Your task to perform on an android device: Play the last video I watched on Youtube Image 0: 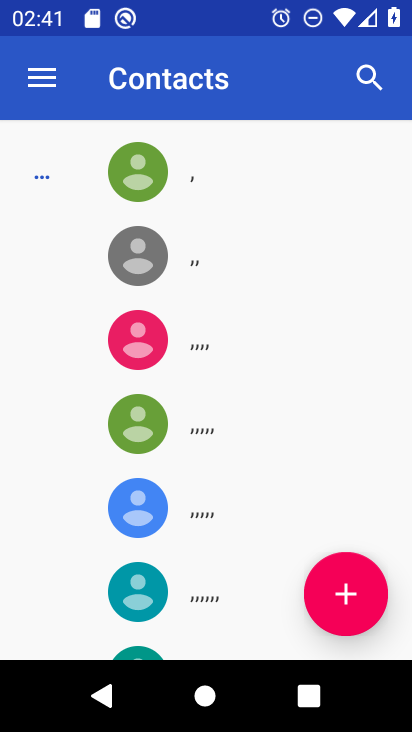
Step 0: press home button
Your task to perform on an android device: Play the last video I watched on Youtube Image 1: 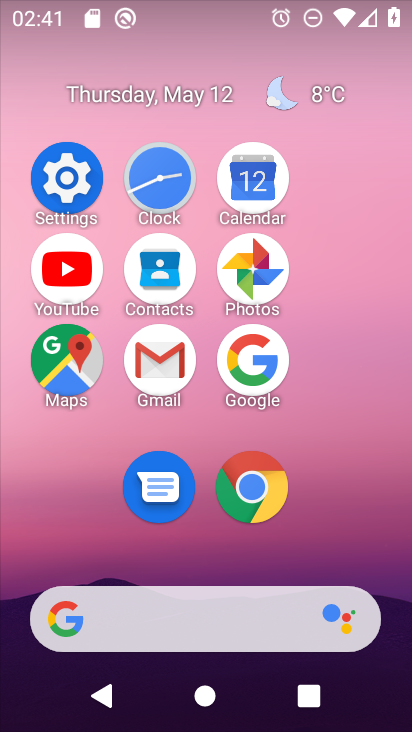
Step 1: click (81, 259)
Your task to perform on an android device: Play the last video I watched on Youtube Image 2: 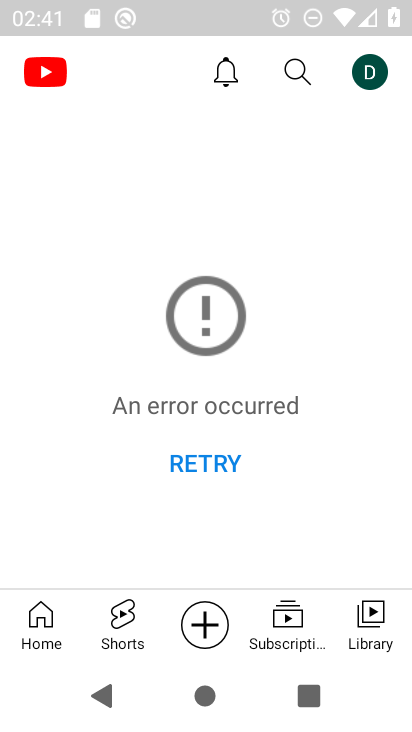
Step 2: click (372, 629)
Your task to perform on an android device: Play the last video I watched on Youtube Image 3: 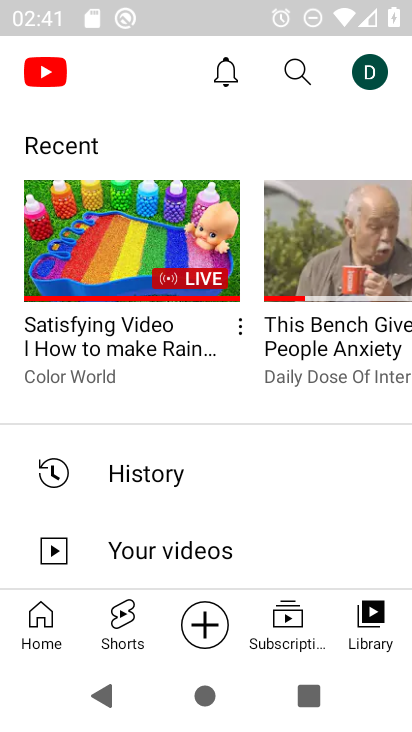
Step 3: click (186, 488)
Your task to perform on an android device: Play the last video I watched on Youtube Image 4: 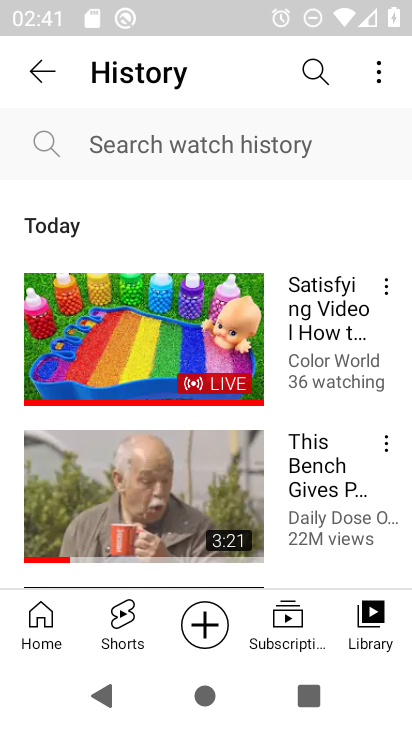
Step 4: task complete